Your task to perform on an android device: Open CNN.com Image 0: 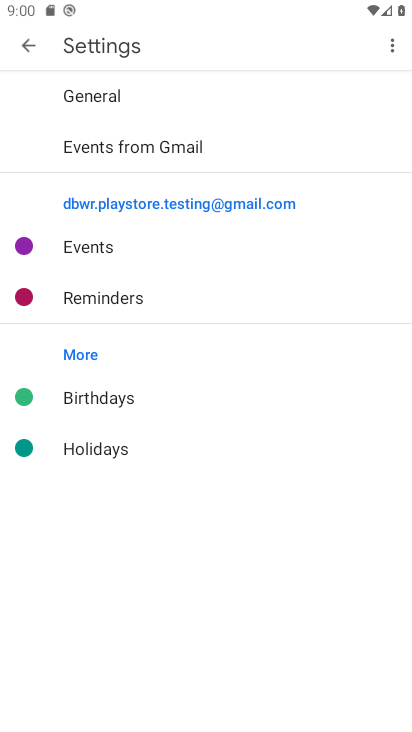
Step 0: press home button
Your task to perform on an android device: Open CNN.com Image 1: 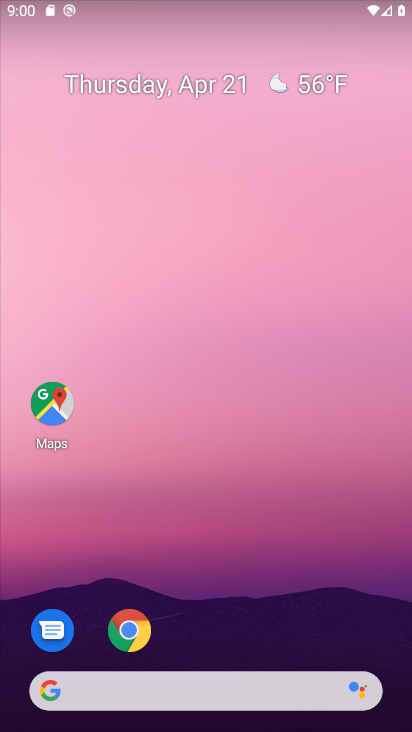
Step 1: click (179, 679)
Your task to perform on an android device: Open CNN.com Image 2: 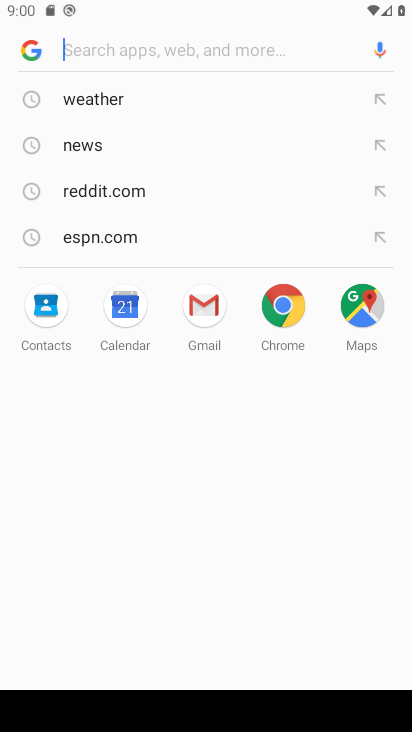
Step 2: type "CNN.com"
Your task to perform on an android device: Open CNN.com Image 3: 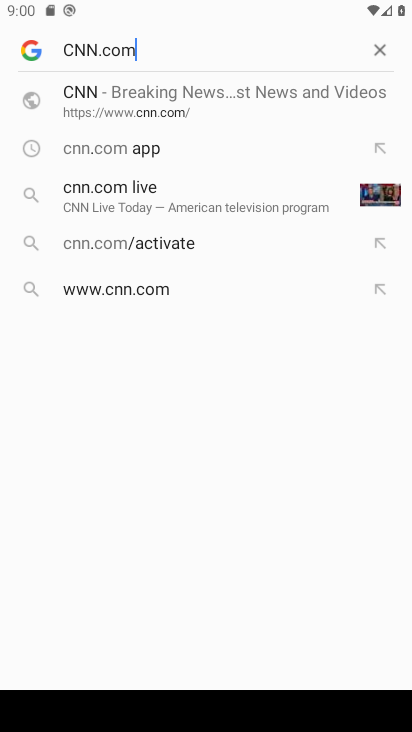
Step 3: click (102, 90)
Your task to perform on an android device: Open CNN.com Image 4: 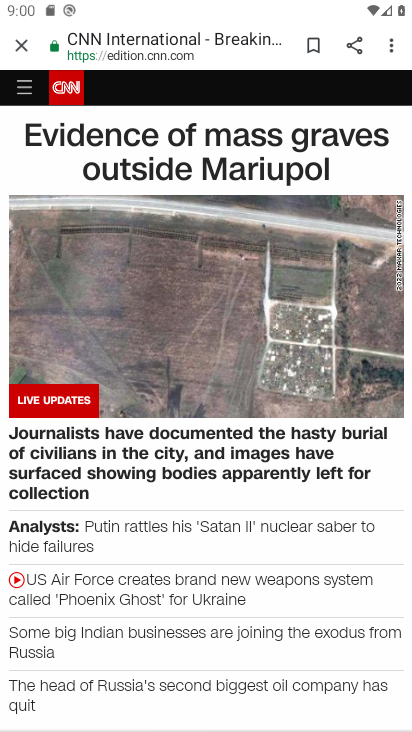
Step 4: task complete